Your task to perform on an android device: Open Youtube and go to "Your channel" Image 0: 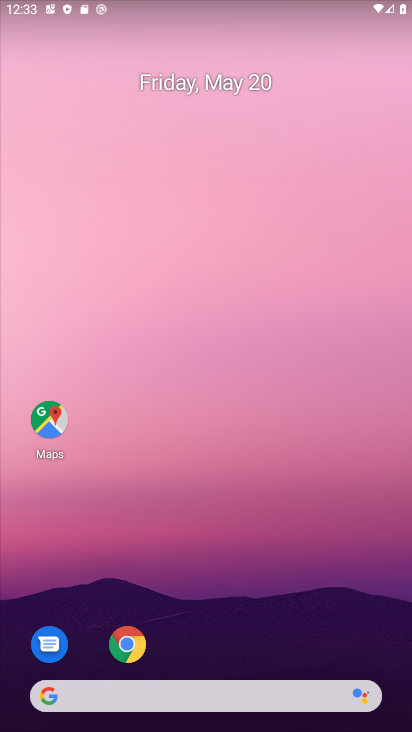
Step 0: drag from (293, 653) to (388, 19)
Your task to perform on an android device: Open Youtube and go to "Your channel" Image 1: 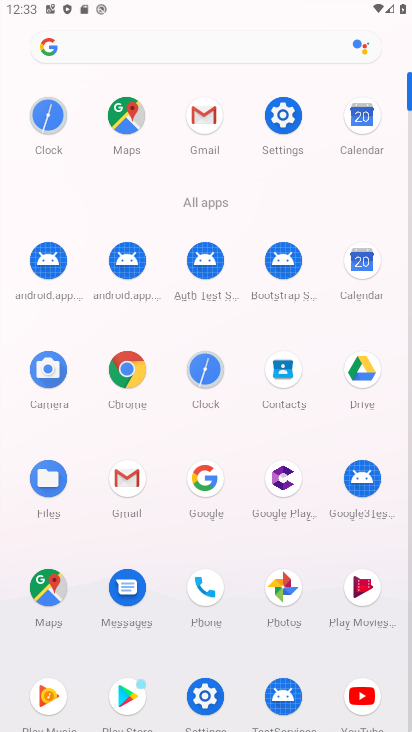
Step 1: click (366, 698)
Your task to perform on an android device: Open Youtube and go to "Your channel" Image 2: 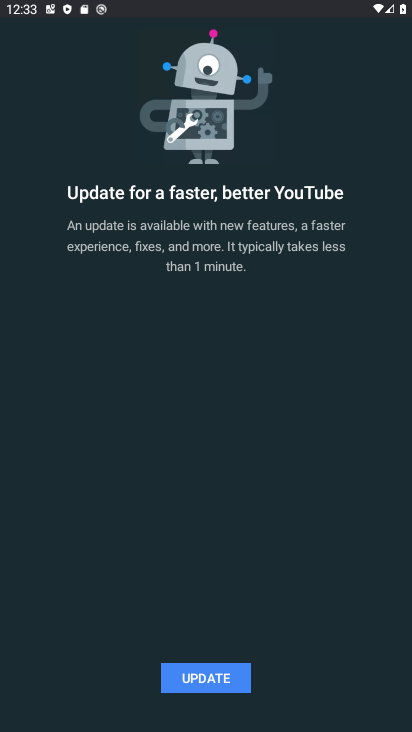
Step 2: click (235, 686)
Your task to perform on an android device: Open Youtube and go to "Your channel" Image 3: 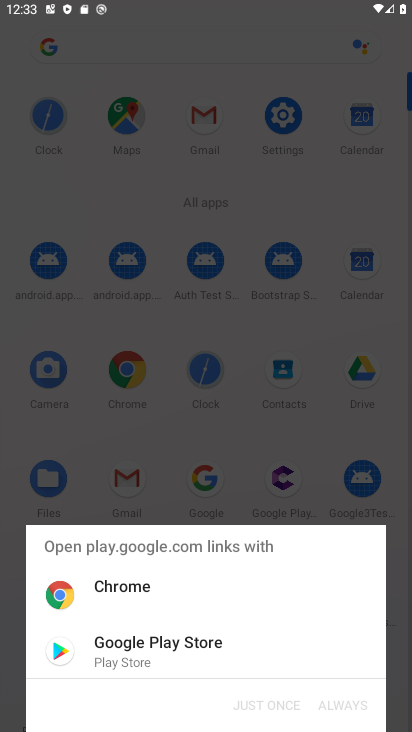
Step 3: click (143, 646)
Your task to perform on an android device: Open Youtube and go to "Your channel" Image 4: 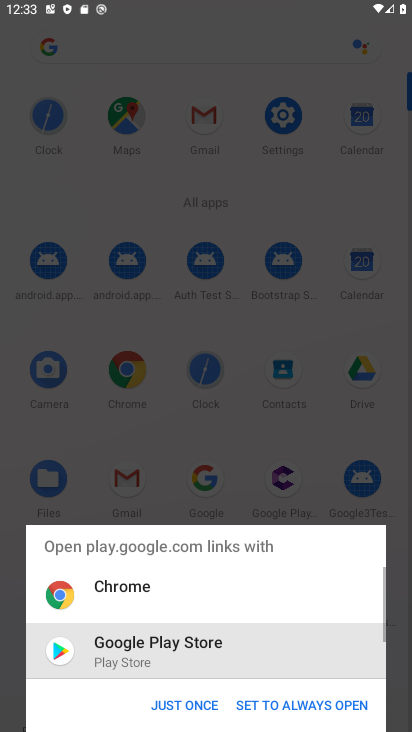
Step 4: click (182, 704)
Your task to perform on an android device: Open Youtube and go to "Your channel" Image 5: 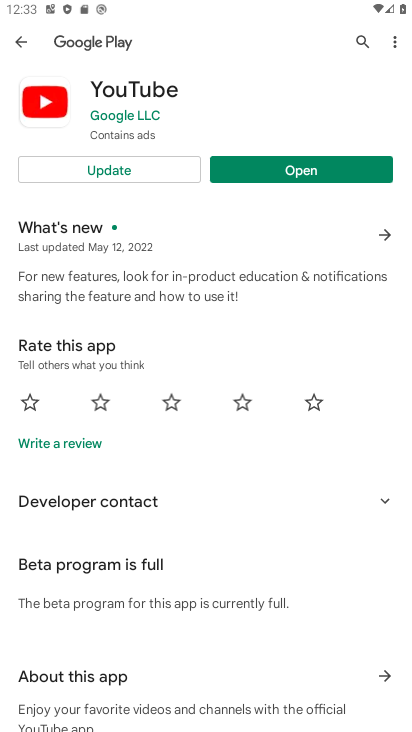
Step 5: click (112, 171)
Your task to perform on an android device: Open Youtube and go to "Your channel" Image 6: 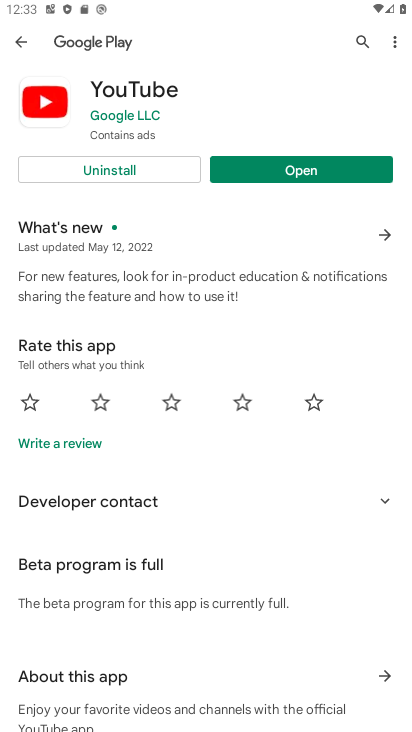
Step 6: click (263, 169)
Your task to perform on an android device: Open Youtube and go to "Your channel" Image 7: 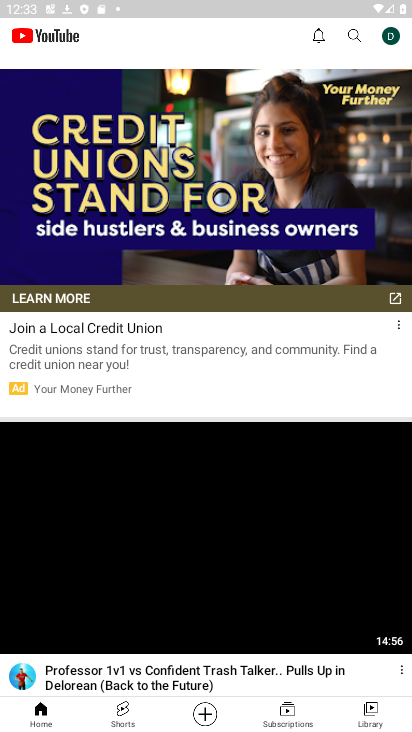
Step 7: click (393, 37)
Your task to perform on an android device: Open Youtube and go to "Your channel" Image 8: 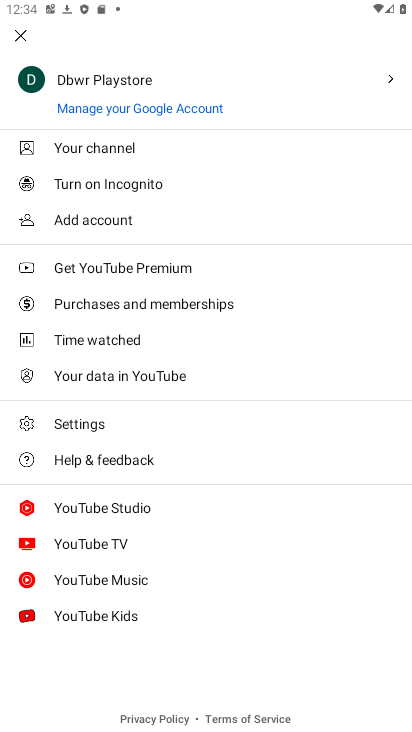
Step 8: click (87, 151)
Your task to perform on an android device: Open Youtube and go to "Your channel" Image 9: 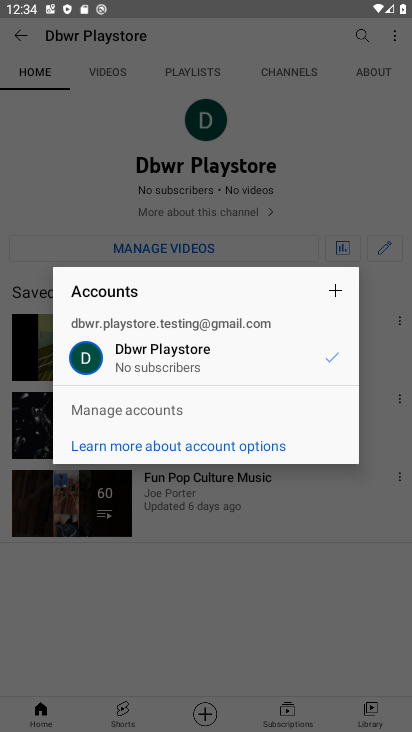
Step 9: click (68, 220)
Your task to perform on an android device: Open Youtube and go to "Your channel" Image 10: 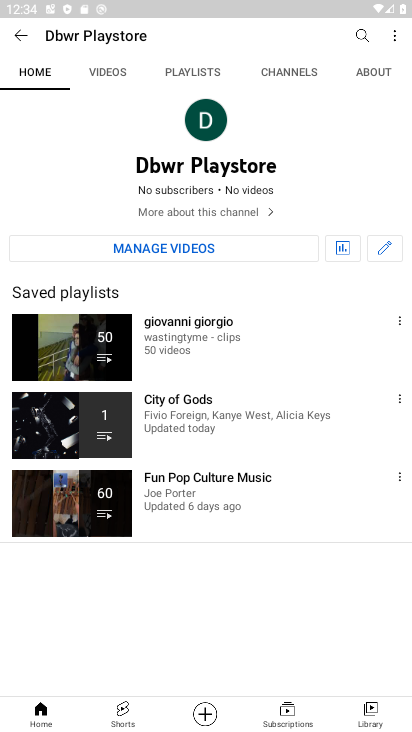
Step 10: task complete